Your task to perform on an android device: Go to Google Image 0: 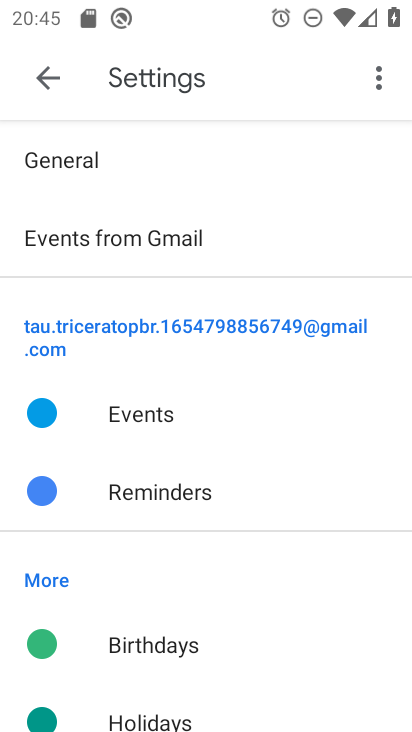
Step 0: press home button
Your task to perform on an android device: Go to Google Image 1: 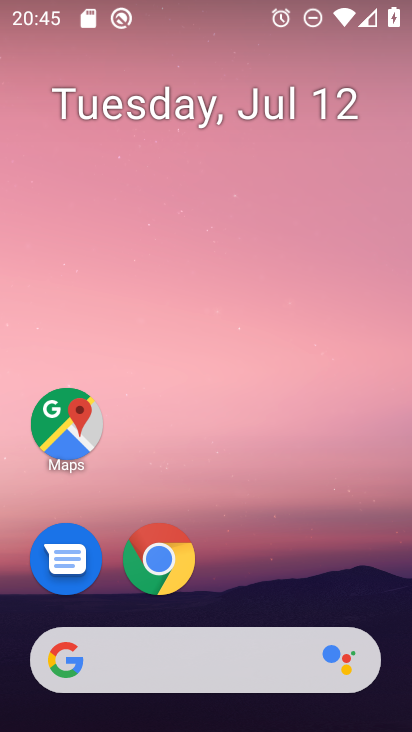
Step 1: drag from (380, 597) to (398, 86)
Your task to perform on an android device: Go to Google Image 2: 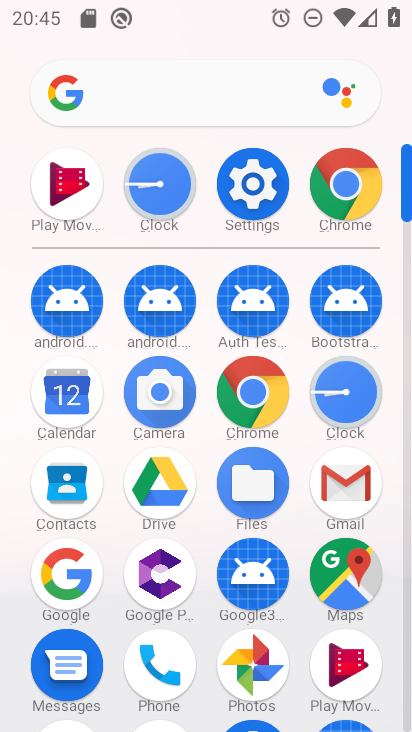
Step 2: click (56, 579)
Your task to perform on an android device: Go to Google Image 3: 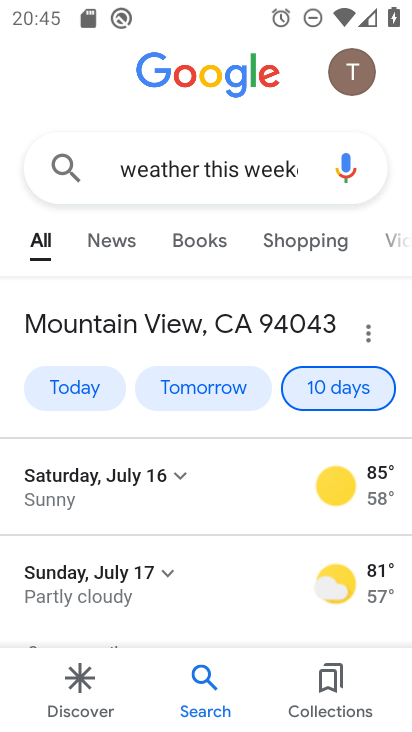
Step 3: task complete